Your task to perform on an android device: Clear the shopping cart on bestbuy. Add apple airpods pro to the cart on bestbuy, then select checkout. Image 0: 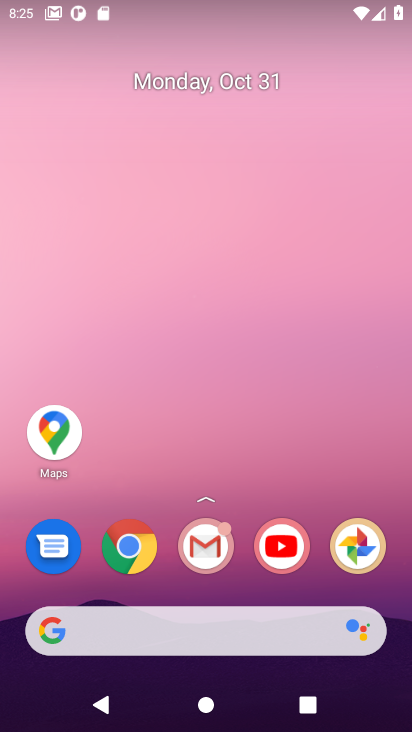
Step 0: drag from (222, 546) to (190, 76)
Your task to perform on an android device: Clear the shopping cart on bestbuy. Add apple airpods pro to the cart on bestbuy, then select checkout. Image 1: 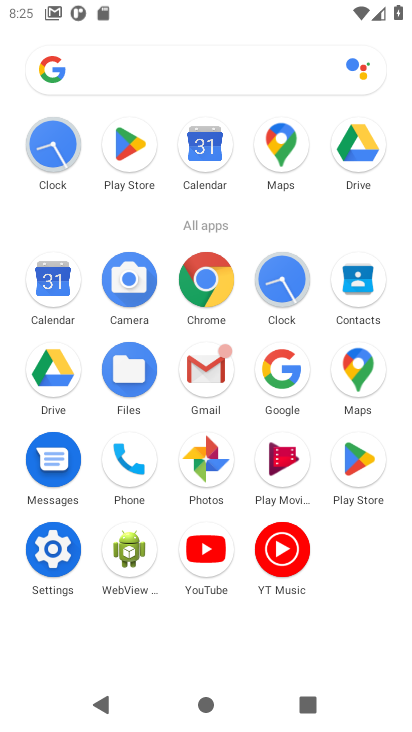
Step 1: click (216, 275)
Your task to perform on an android device: Clear the shopping cart on bestbuy. Add apple airpods pro to the cart on bestbuy, then select checkout. Image 2: 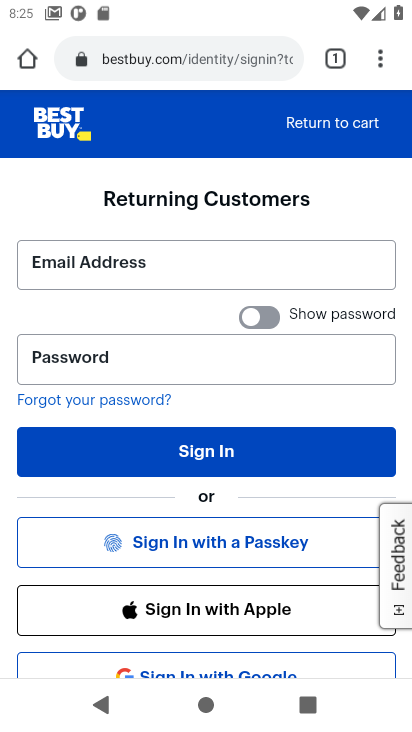
Step 2: drag from (295, 186) to (373, 376)
Your task to perform on an android device: Clear the shopping cart on bestbuy. Add apple airpods pro to the cart on bestbuy, then select checkout. Image 3: 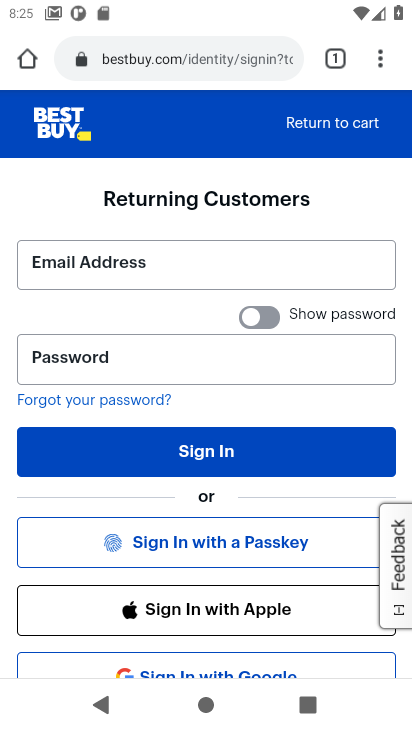
Step 3: click (60, 117)
Your task to perform on an android device: Clear the shopping cart on bestbuy. Add apple airpods pro to the cart on bestbuy, then select checkout. Image 4: 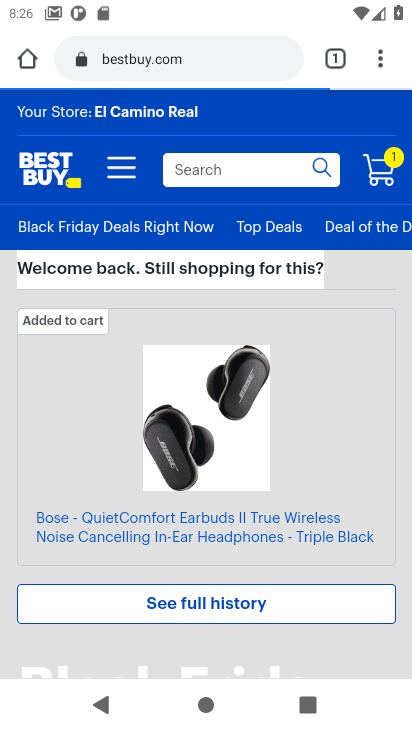
Step 4: click (376, 165)
Your task to perform on an android device: Clear the shopping cart on bestbuy. Add apple airpods pro to the cart on bestbuy, then select checkout. Image 5: 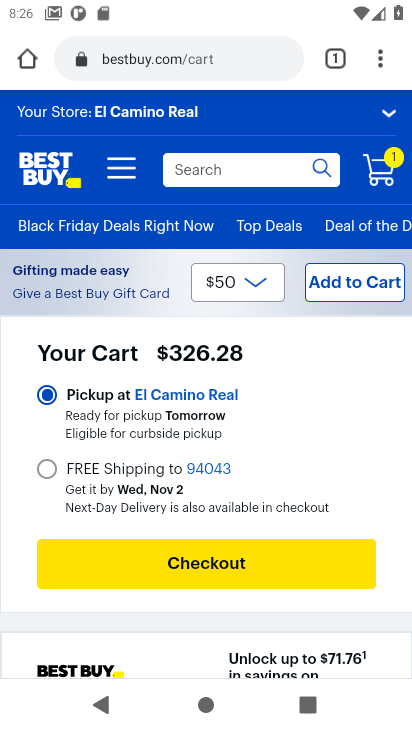
Step 5: drag from (353, 433) to (362, 297)
Your task to perform on an android device: Clear the shopping cart on bestbuy. Add apple airpods pro to the cart on bestbuy, then select checkout. Image 6: 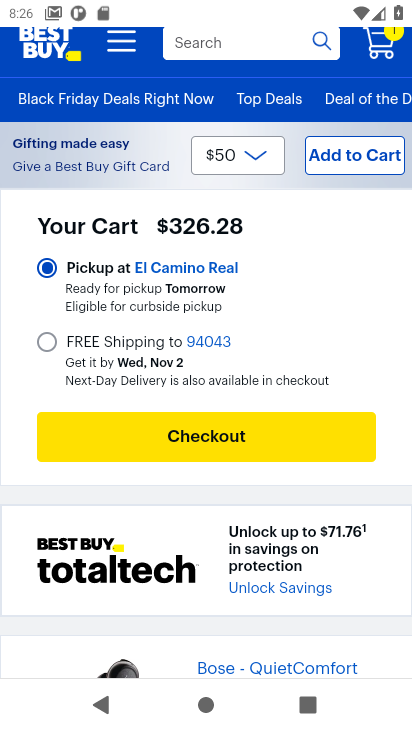
Step 6: drag from (366, 292) to (407, 441)
Your task to perform on an android device: Clear the shopping cart on bestbuy. Add apple airpods pro to the cart on bestbuy, then select checkout. Image 7: 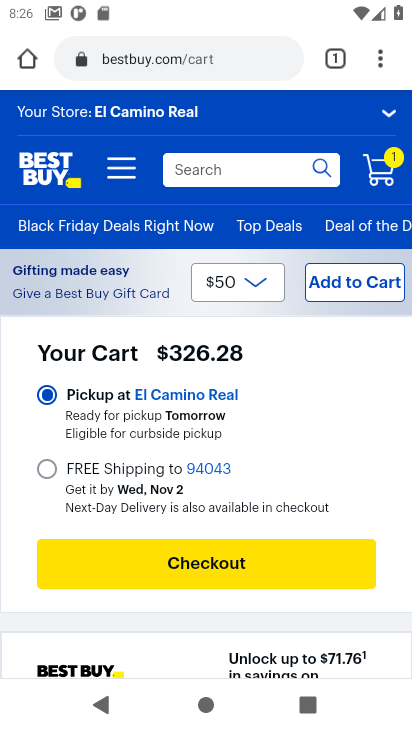
Step 7: drag from (285, 450) to (334, 196)
Your task to perform on an android device: Clear the shopping cart on bestbuy. Add apple airpods pro to the cart on bestbuy, then select checkout. Image 8: 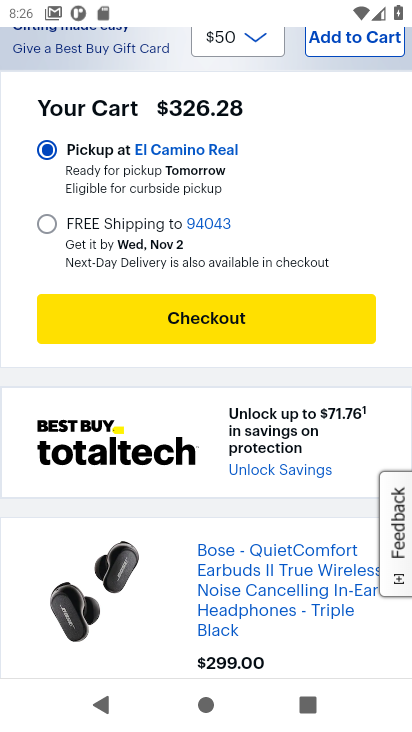
Step 8: drag from (332, 512) to (330, 242)
Your task to perform on an android device: Clear the shopping cart on bestbuy. Add apple airpods pro to the cart on bestbuy, then select checkout. Image 9: 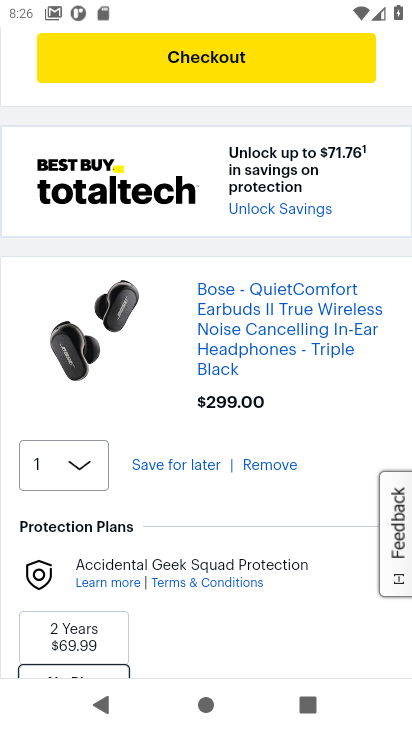
Step 9: drag from (294, 468) to (326, 210)
Your task to perform on an android device: Clear the shopping cart on bestbuy. Add apple airpods pro to the cart on bestbuy, then select checkout. Image 10: 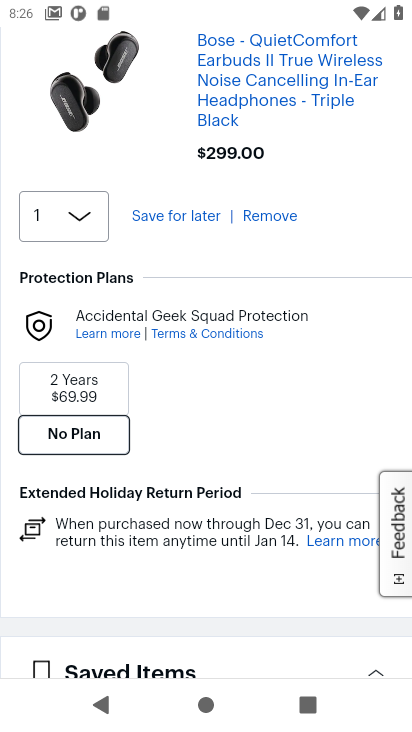
Step 10: drag from (291, 441) to (275, 166)
Your task to perform on an android device: Clear the shopping cart on bestbuy. Add apple airpods pro to the cart on bestbuy, then select checkout. Image 11: 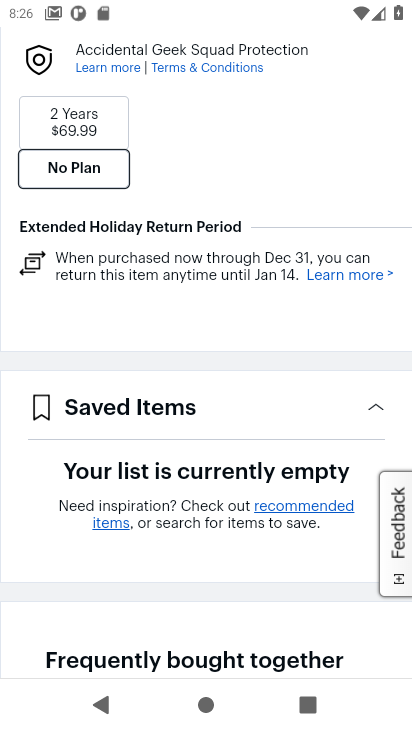
Step 11: drag from (264, 468) to (302, 179)
Your task to perform on an android device: Clear the shopping cart on bestbuy. Add apple airpods pro to the cart on bestbuy, then select checkout. Image 12: 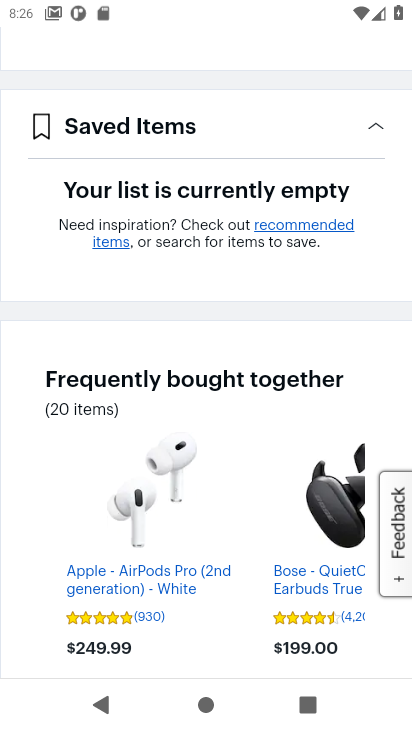
Step 12: drag from (305, 416) to (288, 163)
Your task to perform on an android device: Clear the shopping cart on bestbuy. Add apple airpods pro to the cart on bestbuy, then select checkout. Image 13: 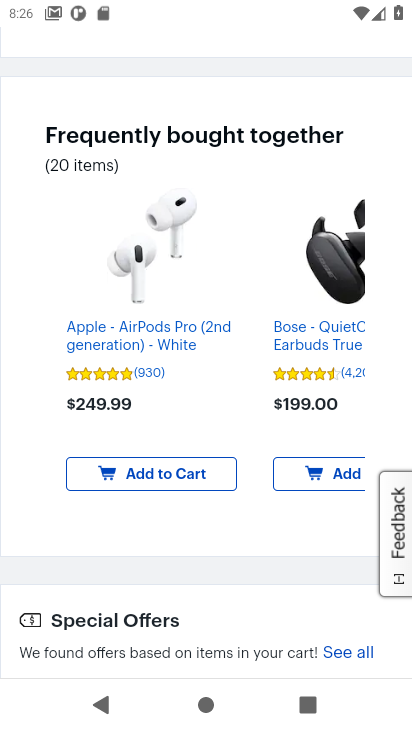
Step 13: drag from (233, 363) to (248, 179)
Your task to perform on an android device: Clear the shopping cart on bestbuy. Add apple airpods pro to the cart on bestbuy, then select checkout. Image 14: 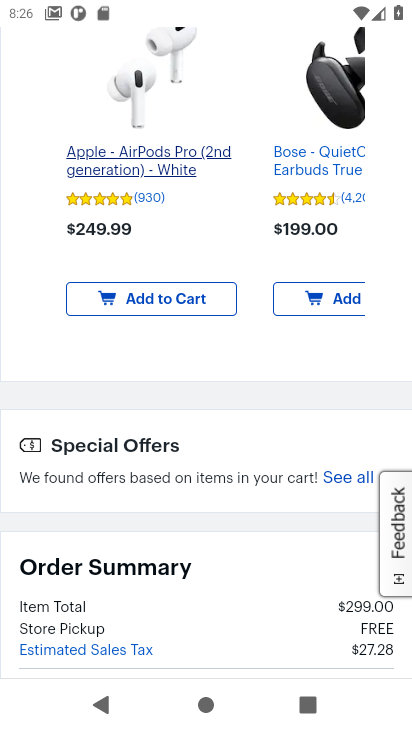
Step 14: drag from (249, 180) to (305, 344)
Your task to perform on an android device: Clear the shopping cart on bestbuy. Add apple airpods pro to the cart on bestbuy, then select checkout. Image 15: 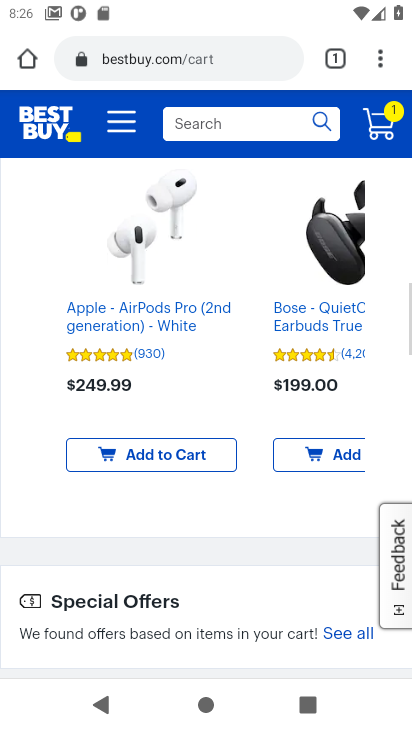
Step 15: drag from (261, 536) to (216, 164)
Your task to perform on an android device: Clear the shopping cart on bestbuy. Add apple airpods pro to the cart on bestbuy, then select checkout. Image 16: 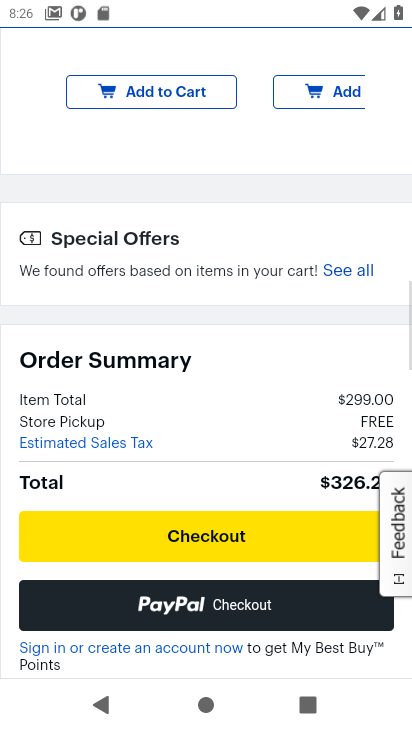
Step 16: drag from (240, 495) to (239, 155)
Your task to perform on an android device: Clear the shopping cart on bestbuy. Add apple airpods pro to the cart on bestbuy, then select checkout. Image 17: 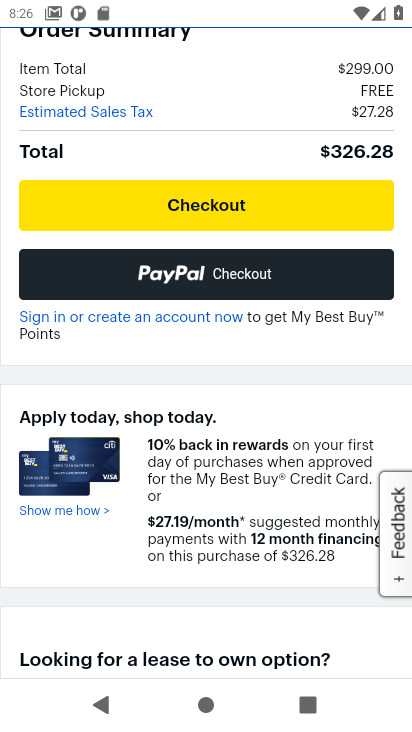
Step 17: drag from (298, 488) to (330, 207)
Your task to perform on an android device: Clear the shopping cart on bestbuy. Add apple airpods pro to the cart on bestbuy, then select checkout. Image 18: 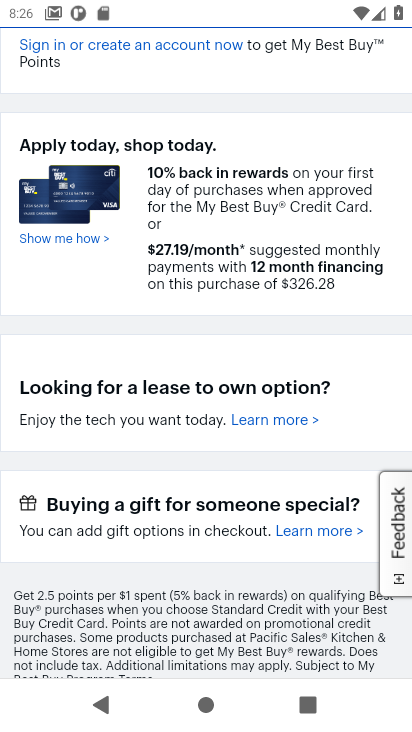
Step 18: drag from (279, 503) to (302, 211)
Your task to perform on an android device: Clear the shopping cart on bestbuy. Add apple airpods pro to the cart on bestbuy, then select checkout. Image 19: 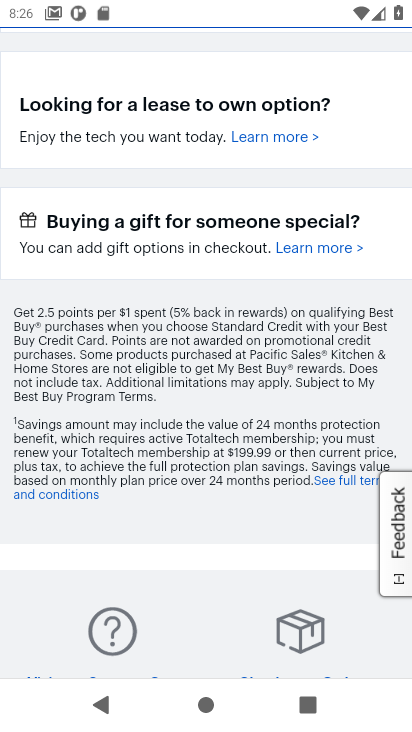
Step 19: drag from (269, 510) to (264, 214)
Your task to perform on an android device: Clear the shopping cart on bestbuy. Add apple airpods pro to the cart on bestbuy, then select checkout. Image 20: 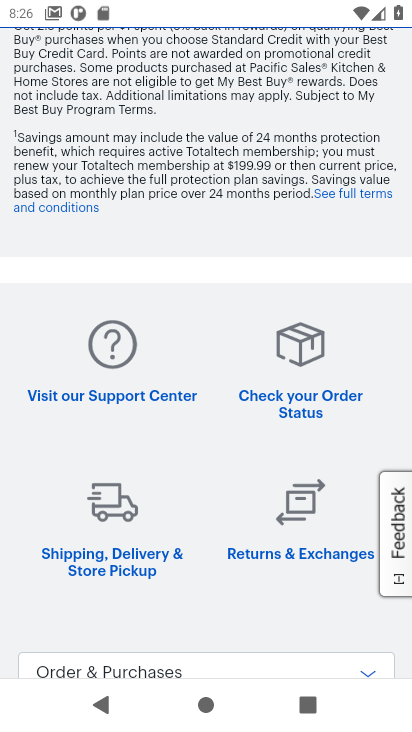
Step 20: drag from (265, 216) to (255, 612)
Your task to perform on an android device: Clear the shopping cart on bestbuy. Add apple airpods pro to the cart on bestbuy, then select checkout. Image 21: 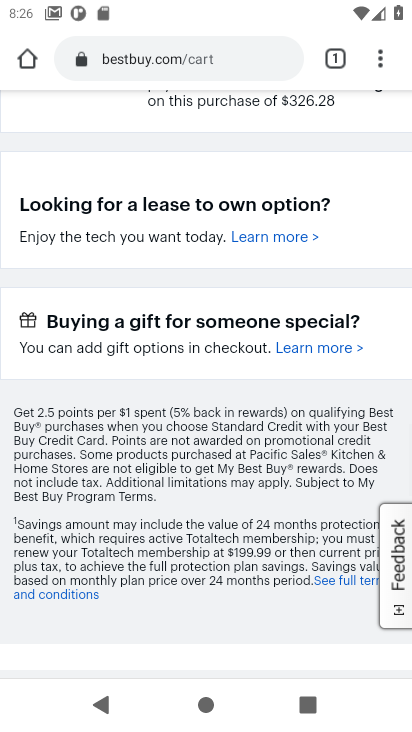
Step 21: drag from (233, 191) to (298, 539)
Your task to perform on an android device: Clear the shopping cart on bestbuy. Add apple airpods pro to the cart on bestbuy, then select checkout. Image 22: 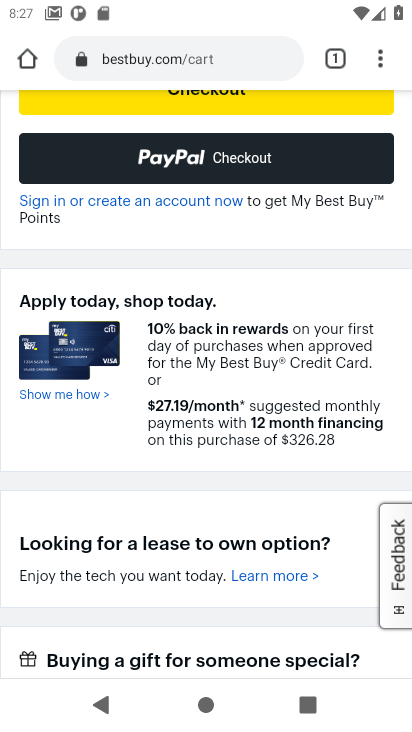
Step 22: drag from (308, 240) to (356, 595)
Your task to perform on an android device: Clear the shopping cart on bestbuy. Add apple airpods pro to the cart on bestbuy, then select checkout. Image 23: 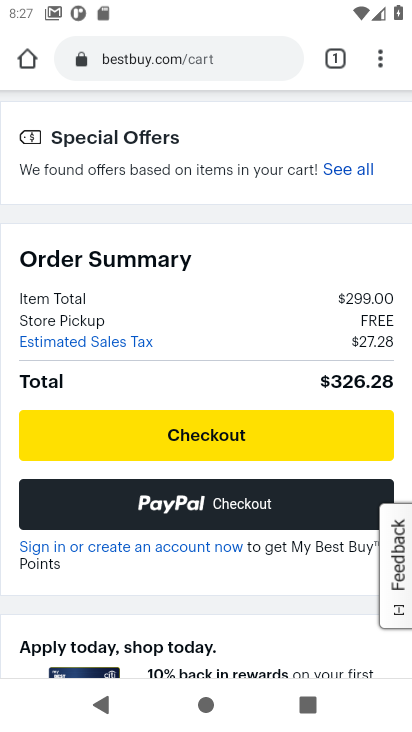
Step 23: drag from (268, 298) to (298, 426)
Your task to perform on an android device: Clear the shopping cart on bestbuy. Add apple airpods pro to the cart on bestbuy, then select checkout. Image 24: 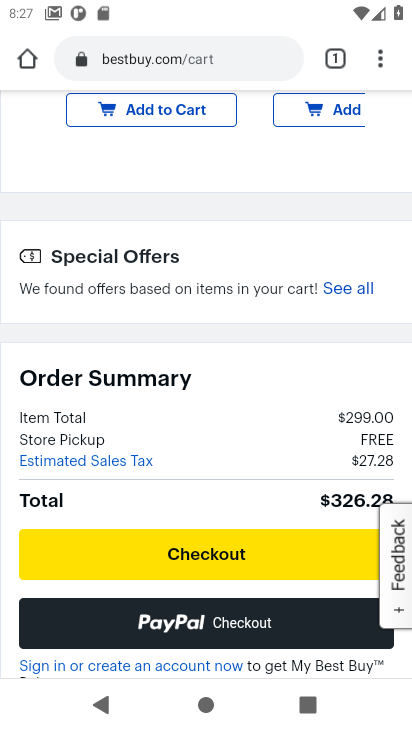
Step 24: drag from (249, 197) to (327, 454)
Your task to perform on an android device: Clear the shopping cart on bestbuy. Add apple airpods pro to the cart on bestbuy, then select checkout. Image 25: 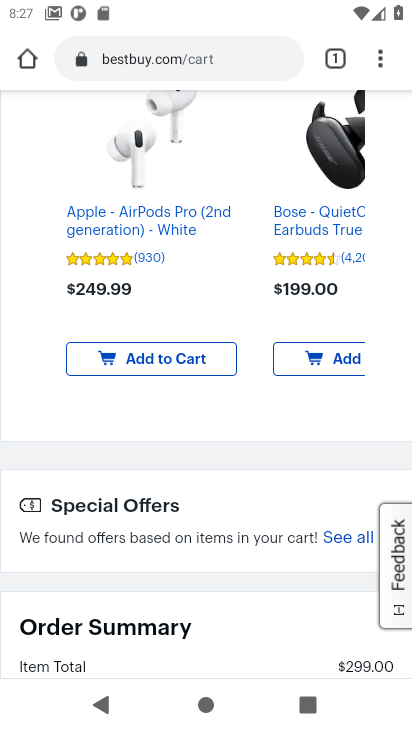
Step 25: drag from (287, 101) to (394, 458)
Your task to perform on an android device: Clear the shopping cart on bestbuy. Add apple airpods pro to the cart on bestbuy, then select checkout. Image 26: 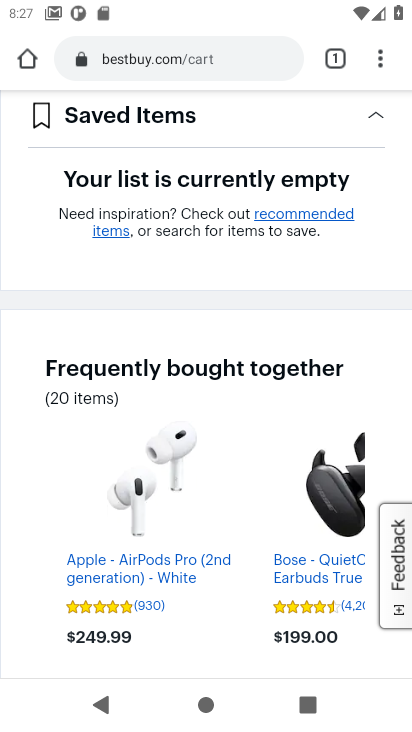
Step 26: drag from (331, 166) to (349, 420)
Your task to perform on an android device: Clear the shopping cart on bestbuy. Add apple airpods pro to the cart on bestbuy, then select checkout. Image 27: 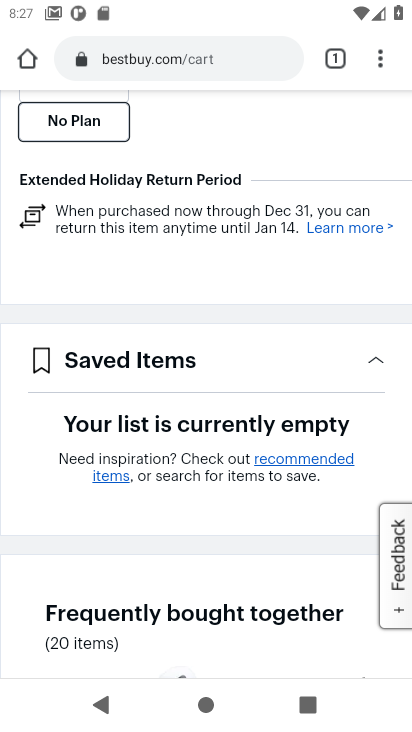
Step 27: drag from (363, 271) to (409, 370)
Your task to perform on an android device: Clear the shopping cart on bestbuy. Add apple airpods pro to the cart on bestbuy, then select checkout. Image 28: 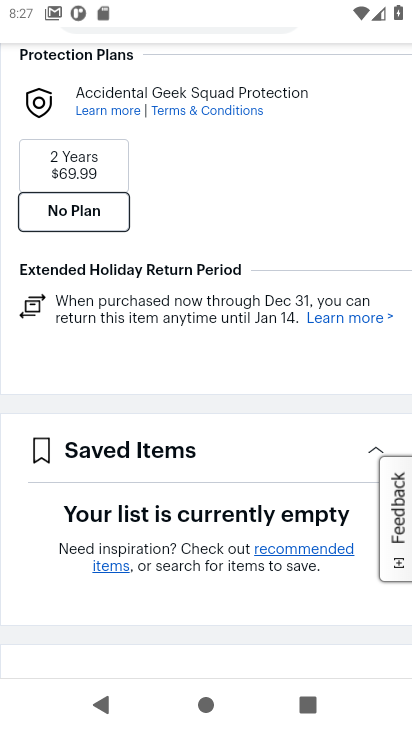
Step 28: drag from (290, 158) to (307, 460)
Your task to perform on an android device: Clear the shopping cart on bestbuy. Add apple airpods pro to the cart on bestbuy, then select checkout. Image 29: 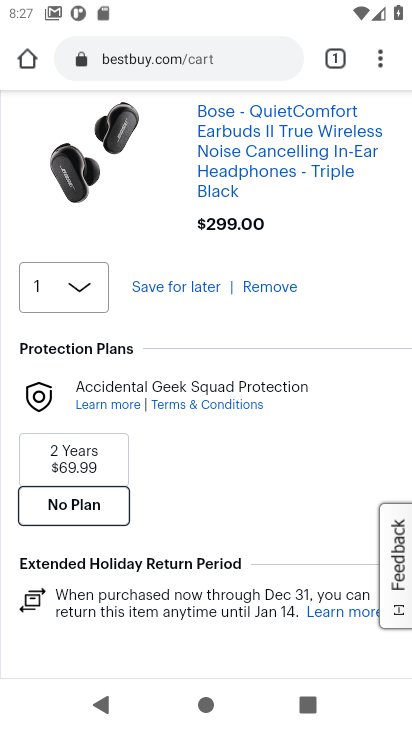
Step 29: drag from (293, 178) to (358, 446)
Your task to perform on an android device: Clear the shopping cart on bestbuy. Add apple airpods pro to the cart on bestbuy, then select checkout. Image 30: 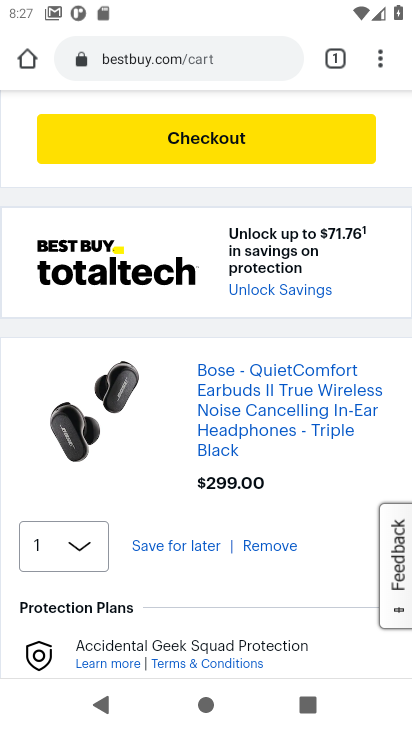
Step 30: drag from (312, 202) to (359, 477)
Your task to perform on an android device: Clear the shopping cart on bestbuy. Add apple airpods pro to the cart on bestbuy, then select checkout. Image 31: 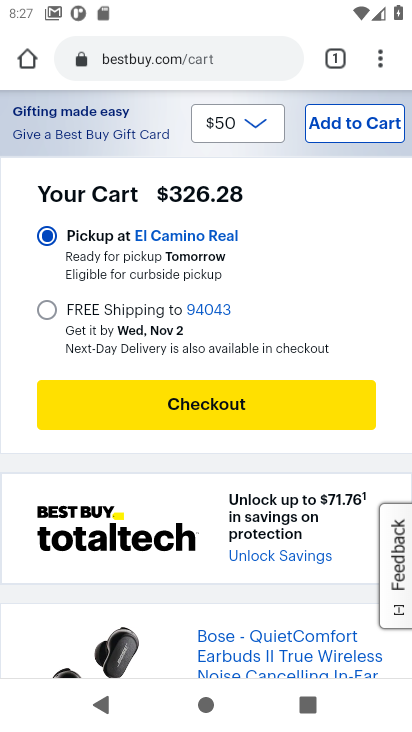
Step 31: click (246, 392)
Your task to perform on an android device: Clear the shopping cart on bestbuy. Add apple airpods pro to the cart on bestbuy, then select checkout. Image 32: 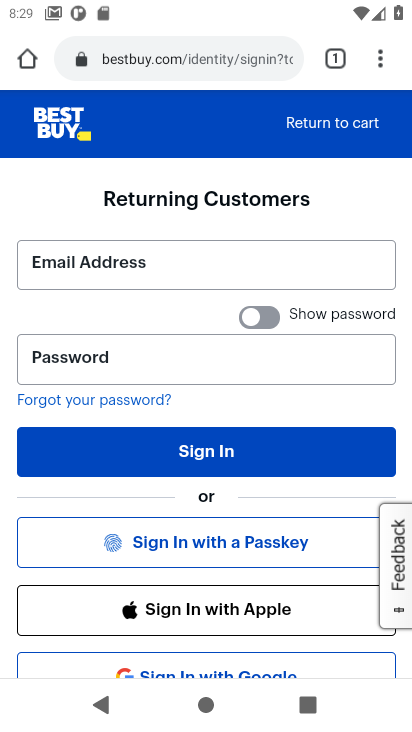
Step 32: task complete